Your task to perform on an android device: Open Android settings Image 0: 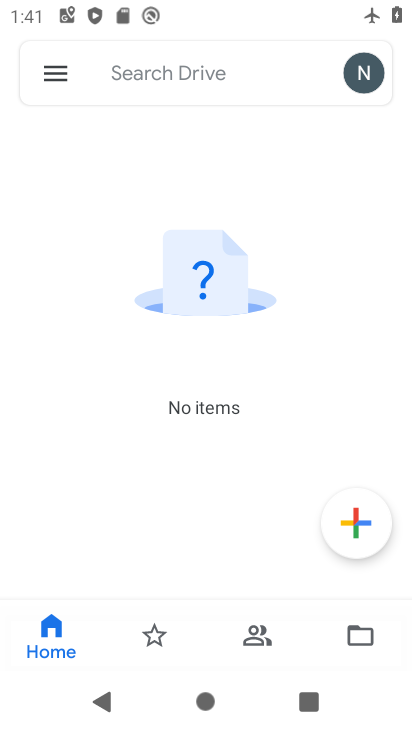
Step 0: press home button
Your task to perform on an android device: Open Android settings Image 1: 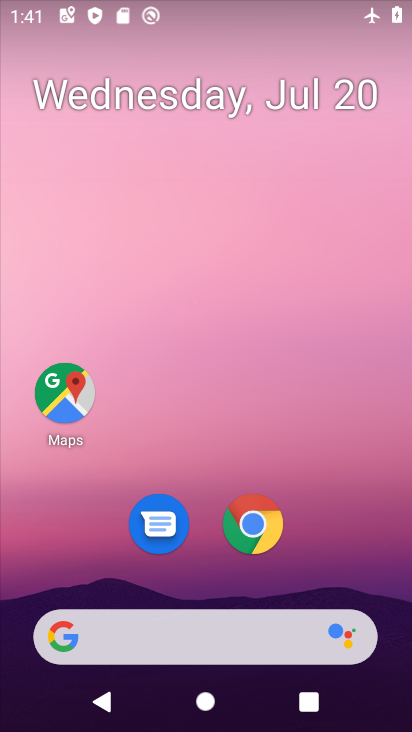
Step 1: drag from (334, 533) to (312, 35)
Your task to perform on an android device: Open Android settings Image 2: 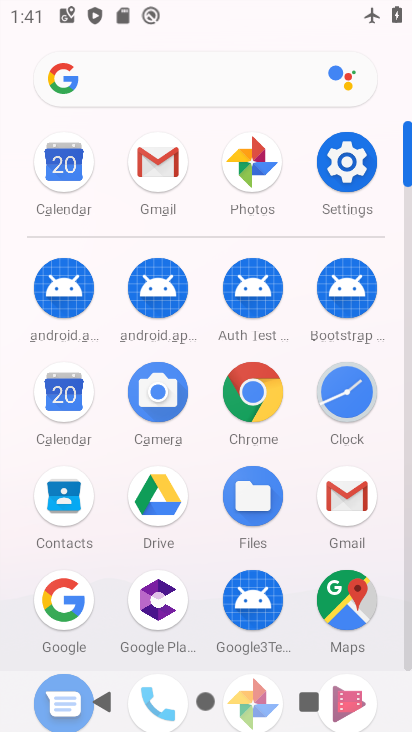
Step 2: drag from (326, 571) to (315, 137)
Your task to perform on an android device: Open Android settings Image 3: 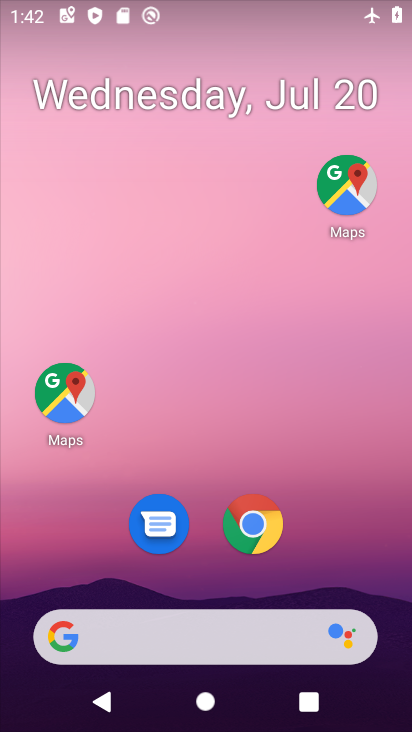
Step 3: click (339, 148)
Your task to perform on an android device: Open Android settings Image 4: 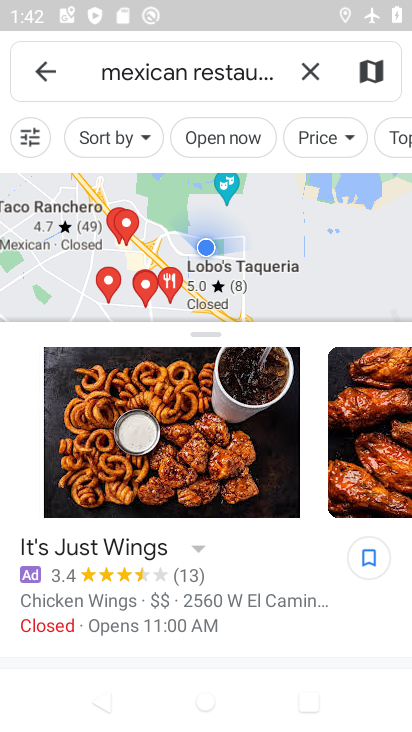
Step 4: click (173, 72)
Your task to perform on an android device: Open Android settings Image 5: 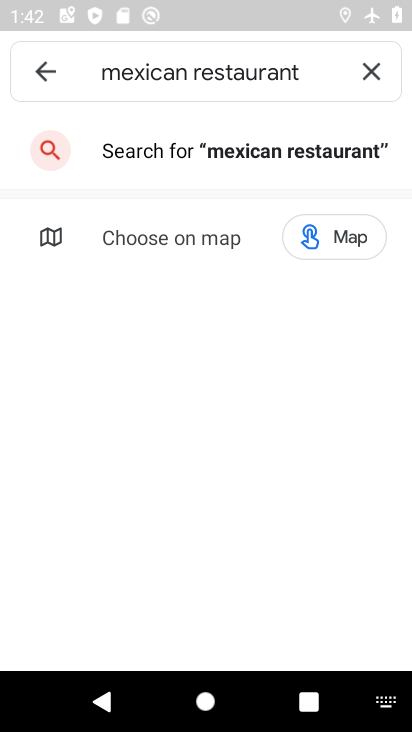
Step 5: press home button
Your task to perform on an android device: Open Android settings Image 6: 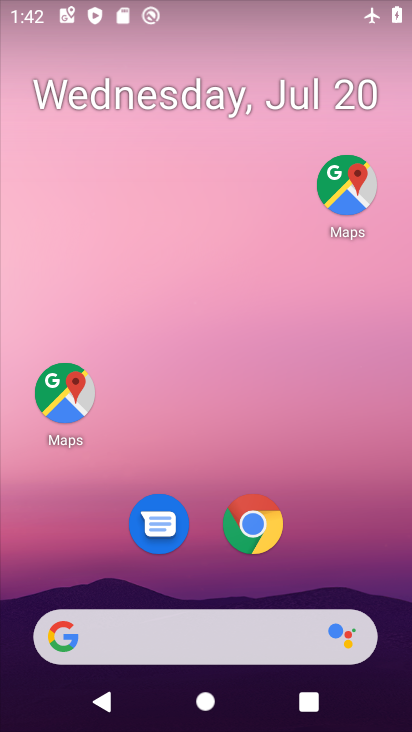
Step 6: drag from (221, 459) to (305, 25)
Your task to perform on an android device: Open Android settings Image 7: 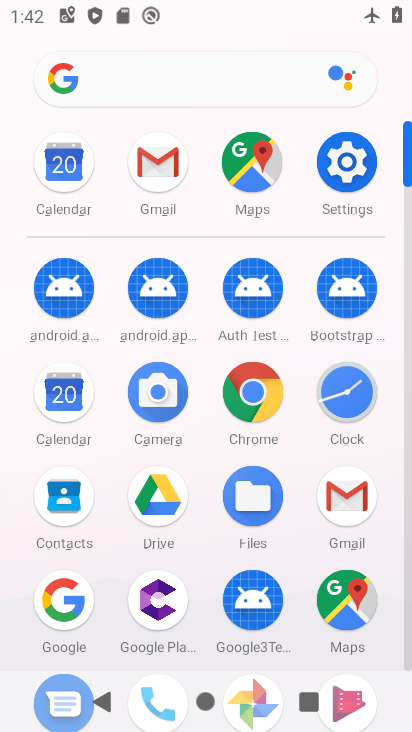
Step 7: click (356, 165)
Your task to perform on an android device: Open Android settings Image 8: 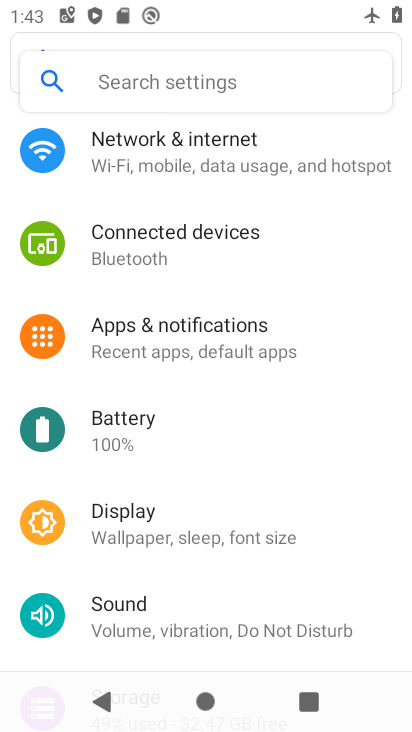
Step 8: drag from (273, 502) to (281, 121)
Your task to perform on an android device: Open Android settings Image 9: 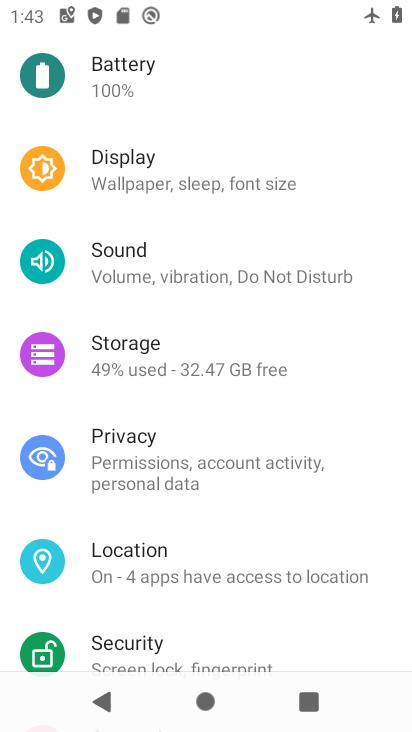
Step 9: drag from (247, 459) to (272, 62)
Your task to perform on an android device: Open Android settings Image 10: 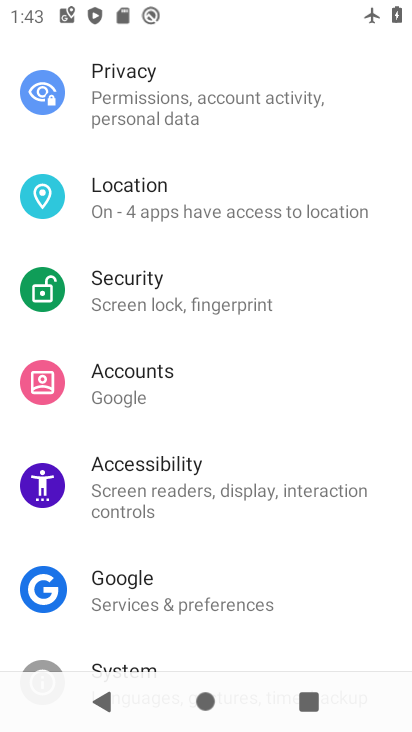
Step 10: drag from (227, 577) to (207, 176)
Your task to perform on an android device: Open Android settings Image 11: 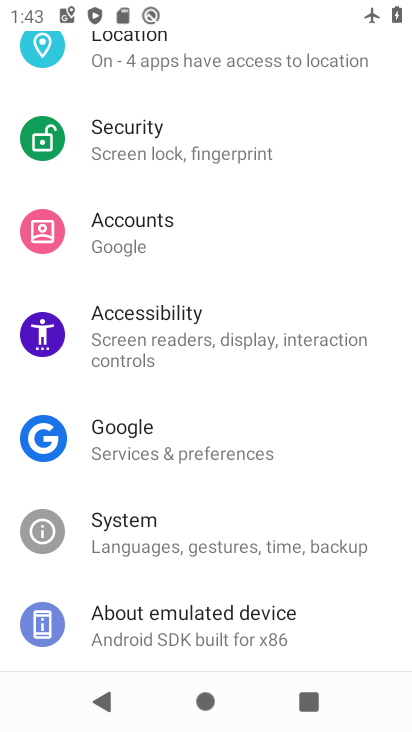
Step 11: click (229, 619)
Your task to perform on an android device: Open Android settings Image 12: 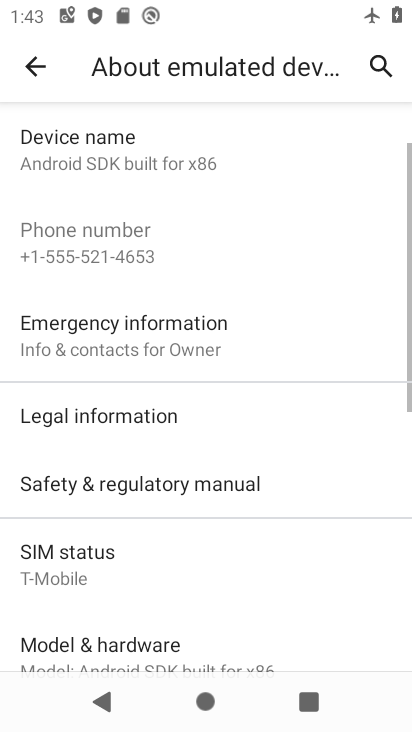
Step 12: drag from (237, 562) to (232, 178)
Your task to perform on an android device: Open Android settings Image 13: 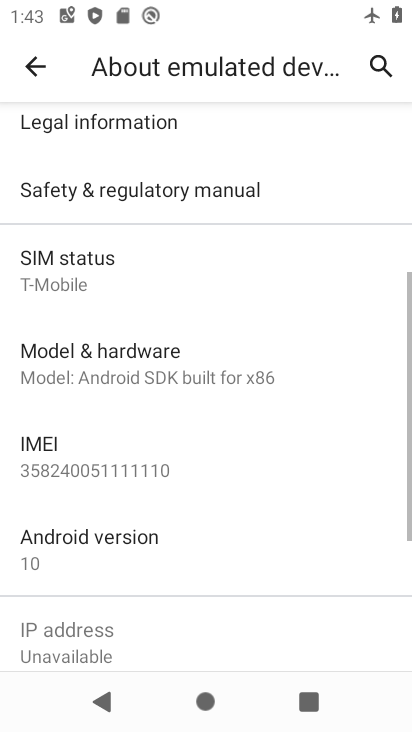
Step 13: click (255, 476)
Your task to perform on an android device: Open Android settings Image 14: 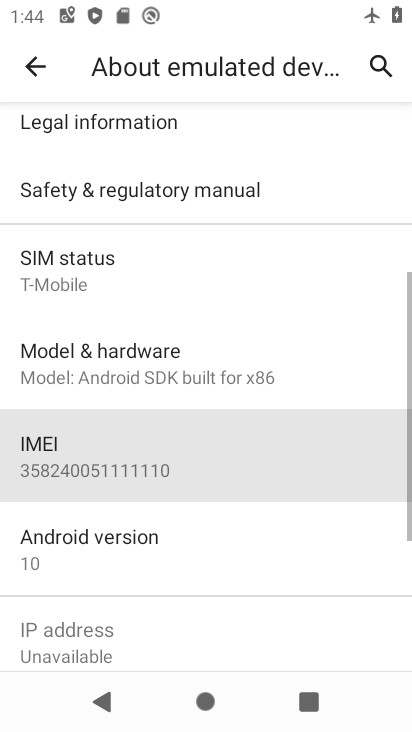
Step 14: task complete